Your task to perform on an android device: check storage Image 0: 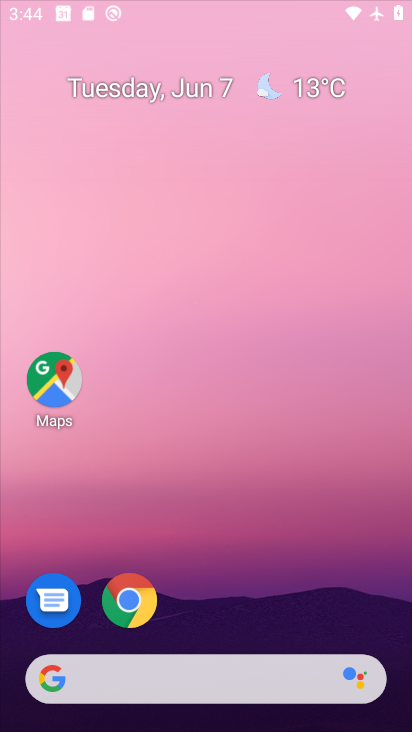
Step 0: drag from (299, 565) to (353, 174)
Your task to perform on an android device: check storage Image 1: 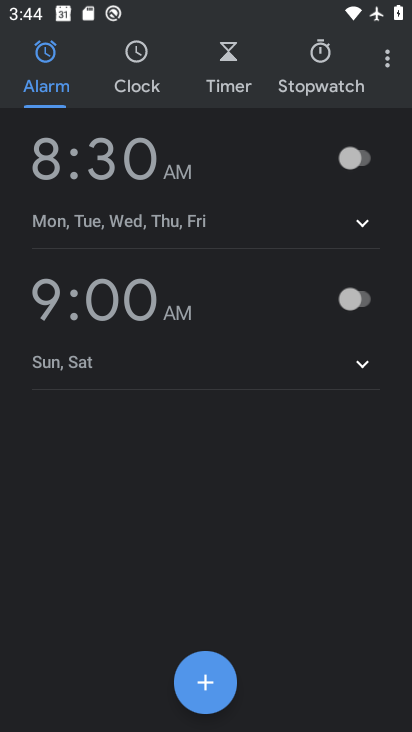
Step 1: press home button
Your task to perform on an android device: check storage Image 2: 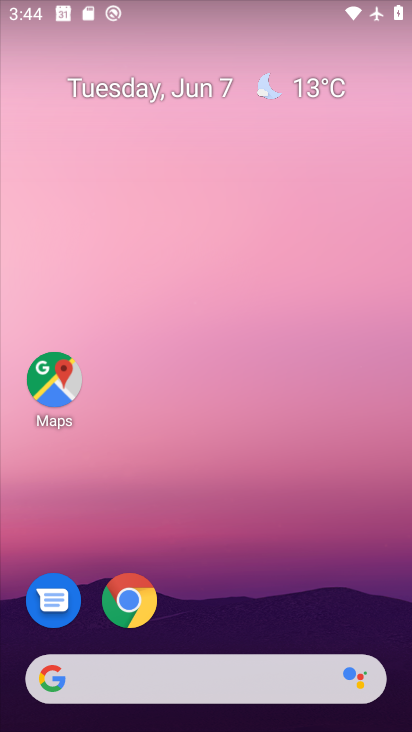
Step 2: drag from (268, 614) to (229, 168)
Your task to perform on an android device: check storage Image 3: 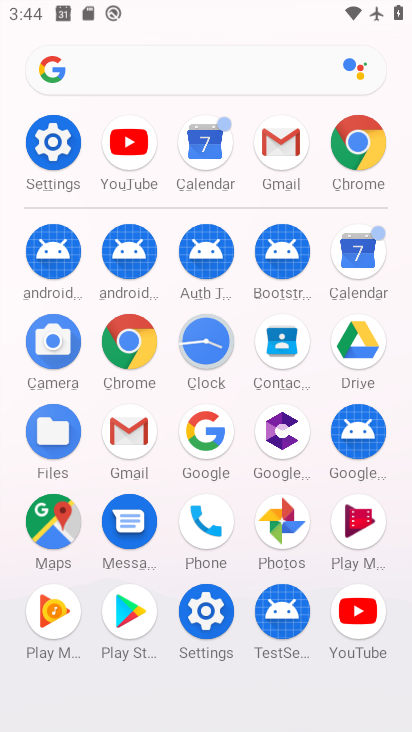
Step 3: click (68, 135)
Your task to perform on an android device: check storage Image 4: 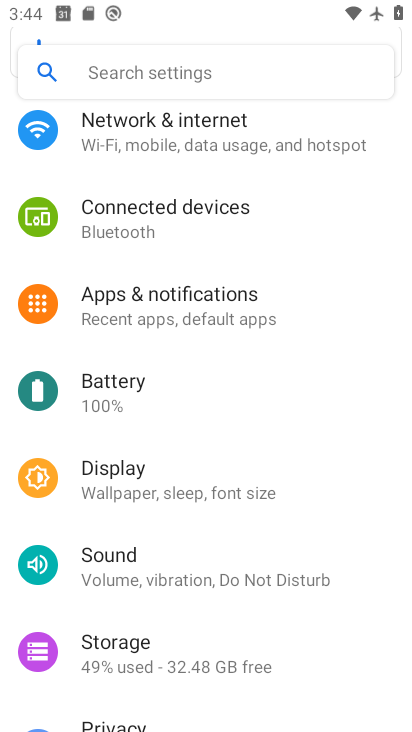
Step 4: click (158, 653)
Your task to perform on an android device: check storage Image 5: 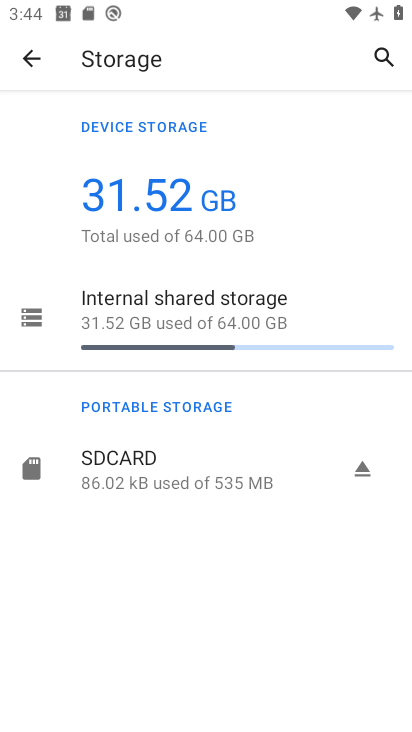
Step 5: task complete